Your task to perform on an android device: Turn off the flashlight Image 0: 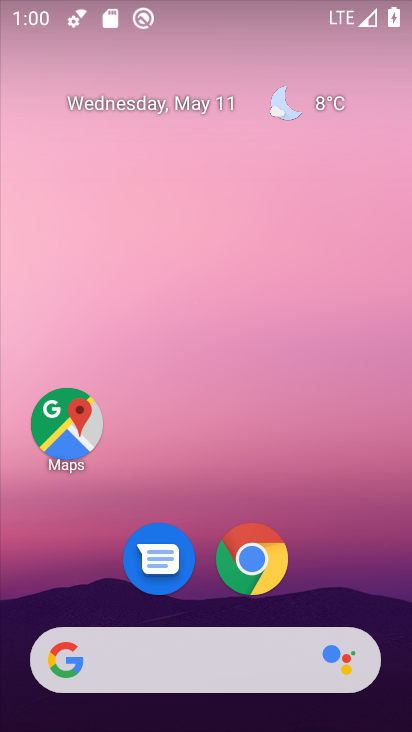
Step 0: drag from (204, 706) to (160, 177)
Your task to perform on an android device: Turn off the flashlight Image 1: 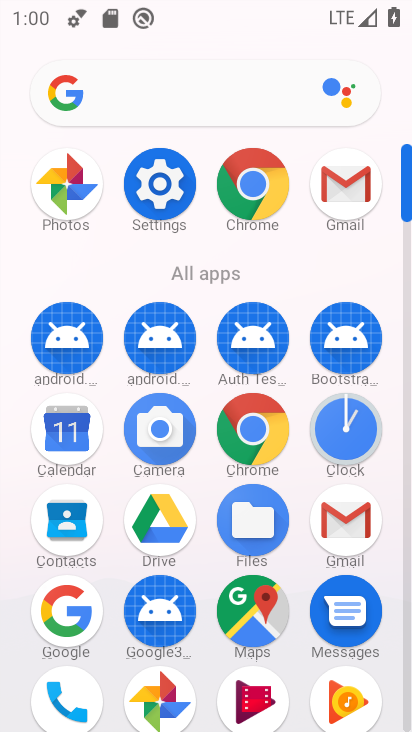
Step 1: click (169, 182)
Your task to perform on an android device: Turn off the flashlight Image 2: 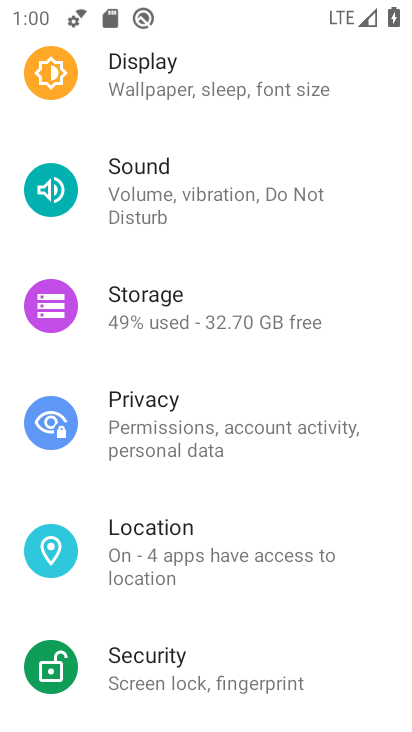
Step 2: task complete